Your task to perform on an android device: toggle wifi Image 0: 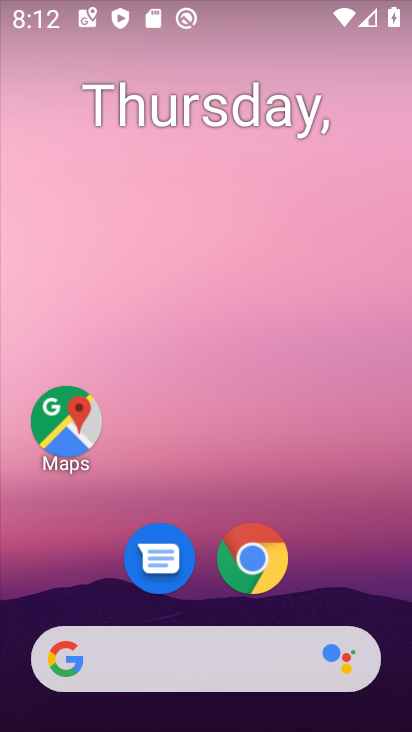
Step 0: drag from (221, 625) to (299, 110)
Your task to perform on an android device: toggle wifi Image 1: 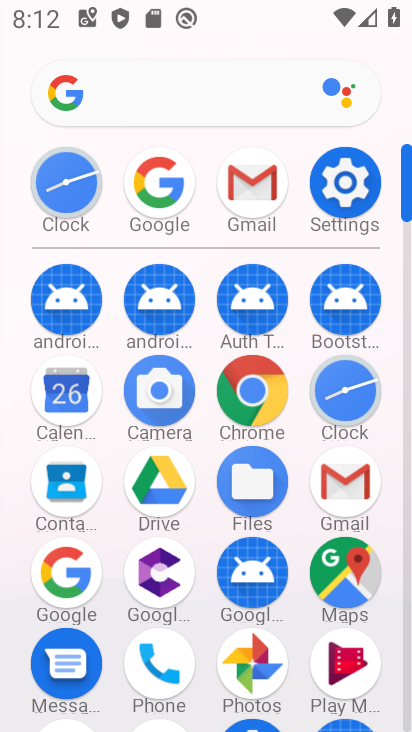
Step 1: click (340, 187)
Your task to perform on an android device: toggle wifi Image 2: 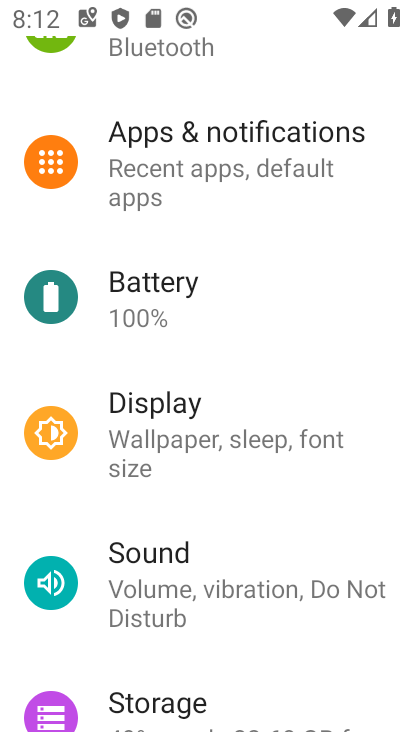
Step 2: drag from (251, 99) to (232, 410)
Your task to perform on an android device: toggle wifi Image 3: 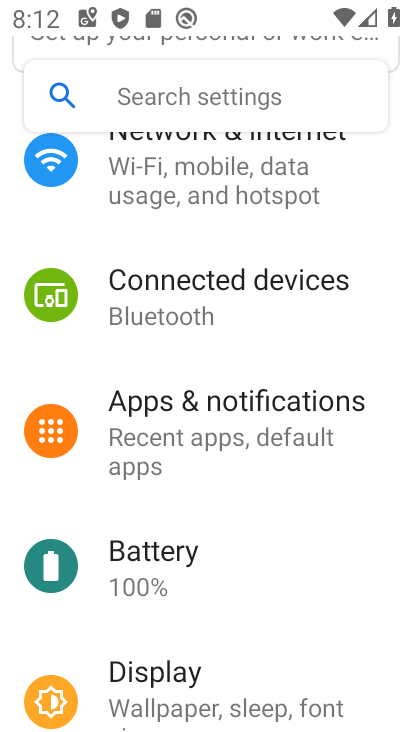
Step 3: click (263, 181)
Your task to perform on an android device: toggle wifi Image 4: 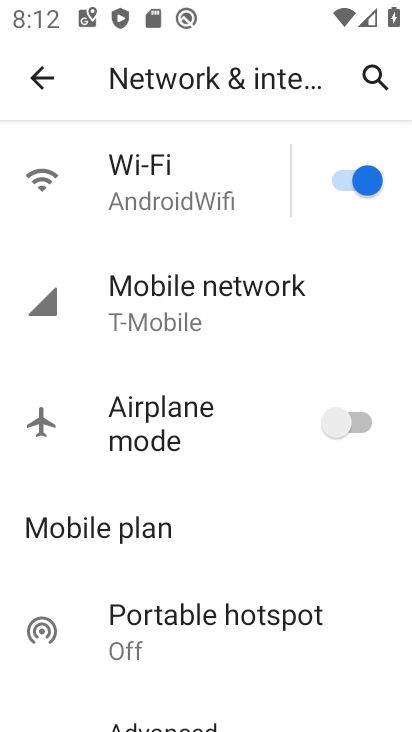
Step 4: click (349, 181)
Your task to perform on an android device: toggle wifi Image 5: 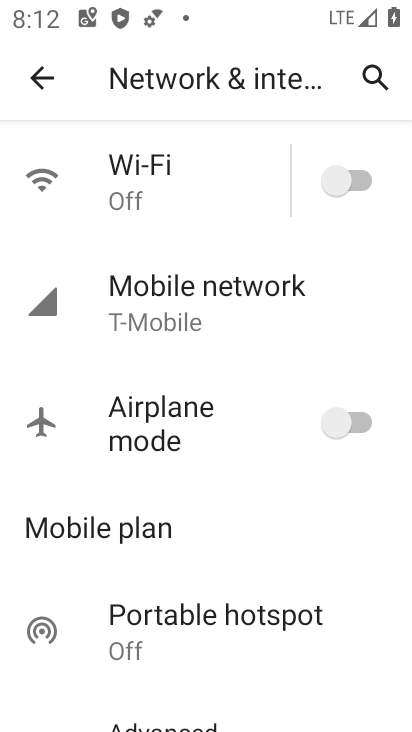
Step 5: task complete